Your task to perform on an android device: Open the map Image 0: 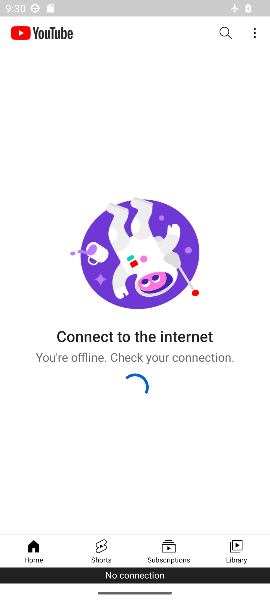
Step 0: press home button
Your task to perform on an android device: Open the map Image 1: 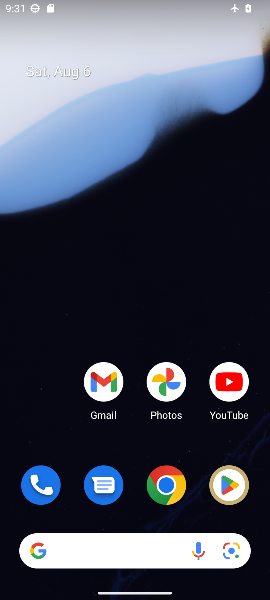
Step 1: drag from (198, 446) to (221, 24)
Your task to perform on an android device: Open the map Image 2: 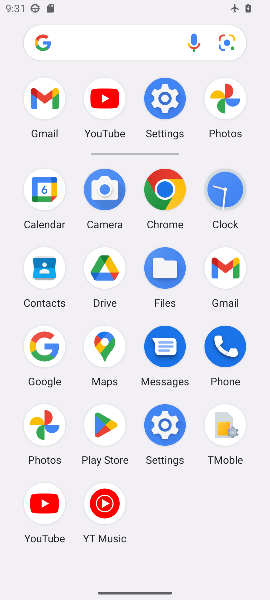
Step 2: click (107, 342)
Your task to perform on an android device: Open the map Image 3: 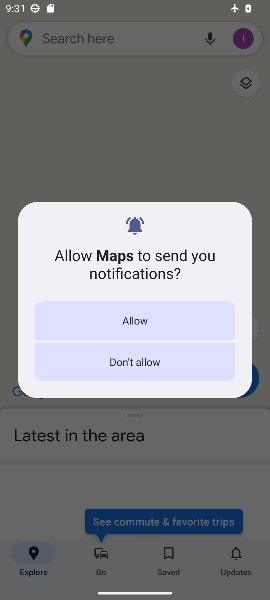
Step 3: click (137, 355)
Your task to perform on an android device: Open the map Image 4: 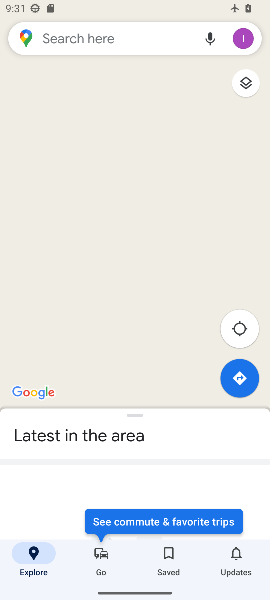
Step 4: task complete